Your task to perform on an android device: turn vacation reply on in the gmail app Image 0: 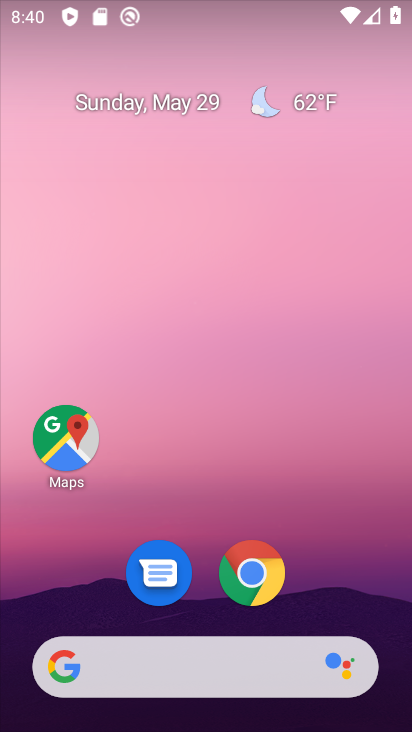
Step 0: drag from (371, 591) to (308, 146)
Your task to perform on an android device: turn vacation reply on in the gmail app Image 1: 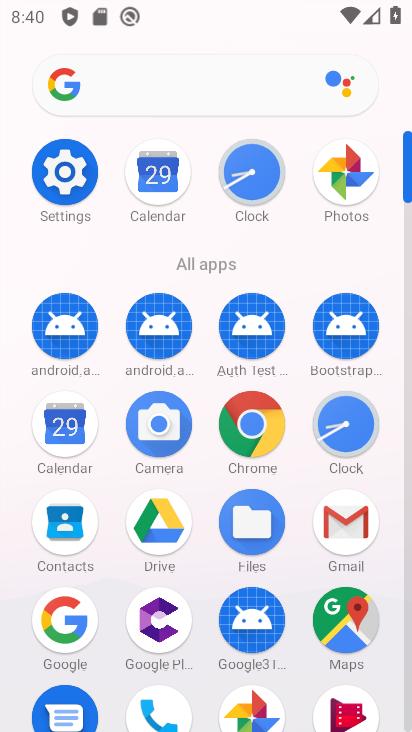
Step 1: click (348, 527)
Your task to perform on an android device: turn vacation reply on in the gmail app Image 2: 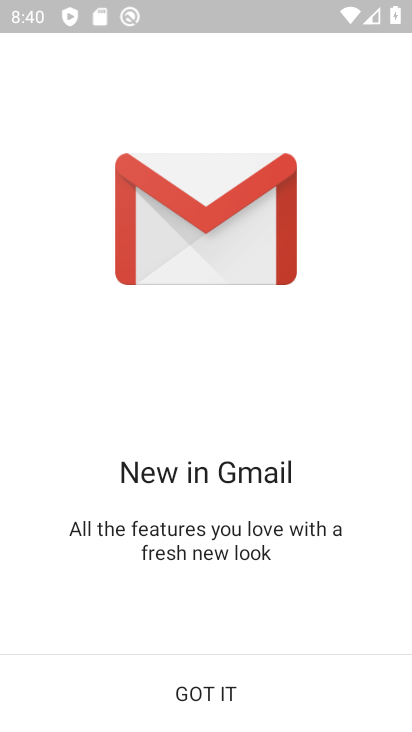
Step 2: click (189, 685)
Your task to perform on an android device: turn vacation reply on in the gmail app Image 3: 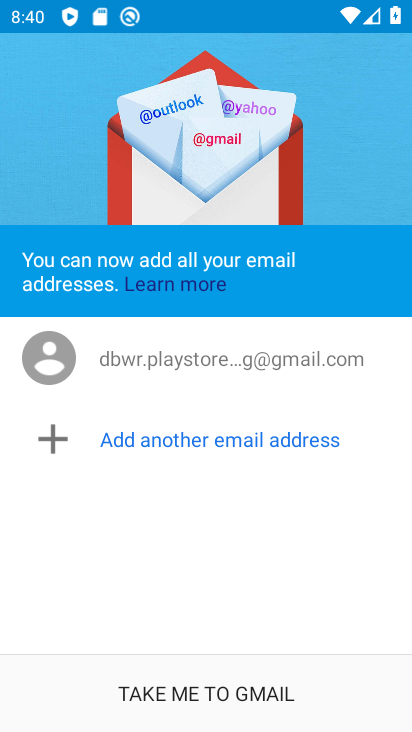
Step 3: click (189, 685)
Your task to perform on an android device: turn vacation reply on in the gmail app Image 4: 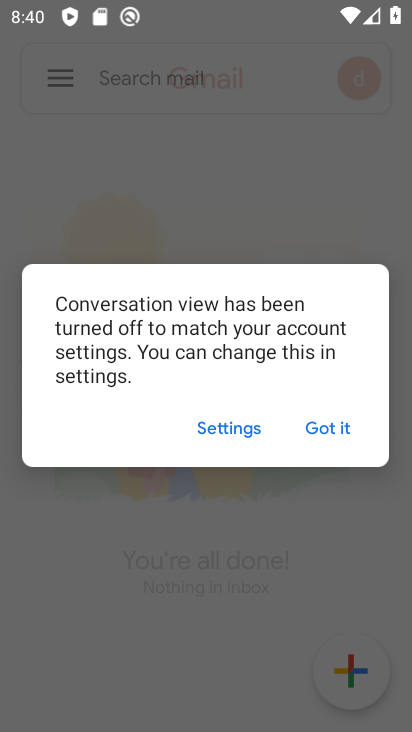
Step 4: click (323, 436)
Your task to perform on an android device: turn vacation reply on in the gmail app Image 5: 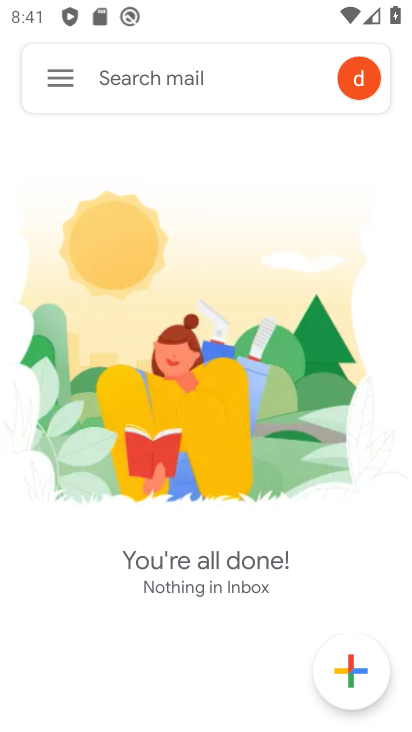
Step 5: click (56, 66)
Your task to perform on an android device: turn vacation reply on in the gmail app Image 6: 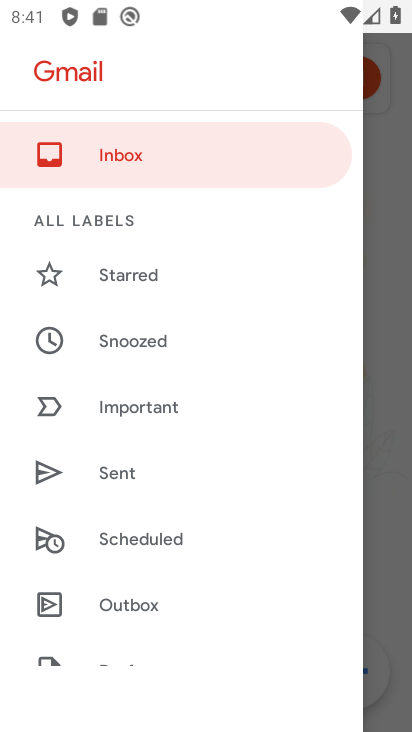
Step 6: drag from (236, 642) to (227, 115)
Your task to perform on an android device: turn vacation reply on in the gmail app Image 7: 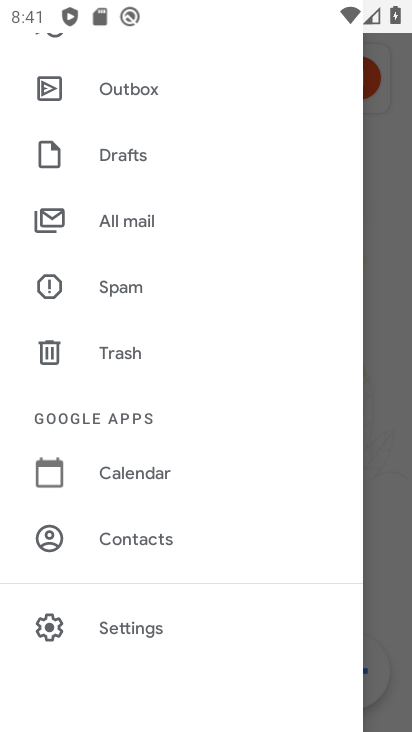
Step 7: click (126, 627)
Your task to perform on an android device: turn vacation reply on in the gmail app Image 8: 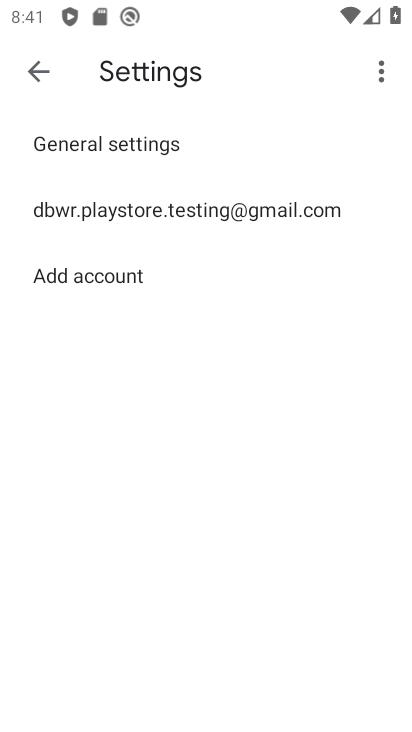
Step 8: click (192, 201)
Your task to perform on an android device: turn vacation reply on in the gmail app Image 9: 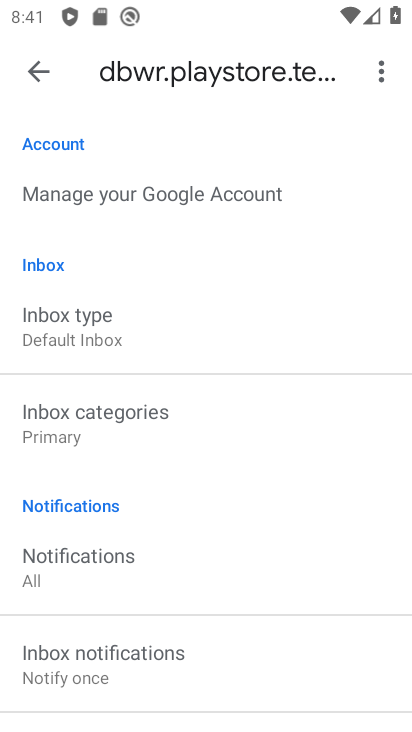
Step 9: drag from (280, 667) to (241, 25)
Your task to perform on an android device: turn vacation reply on in the gmail app Image 10: 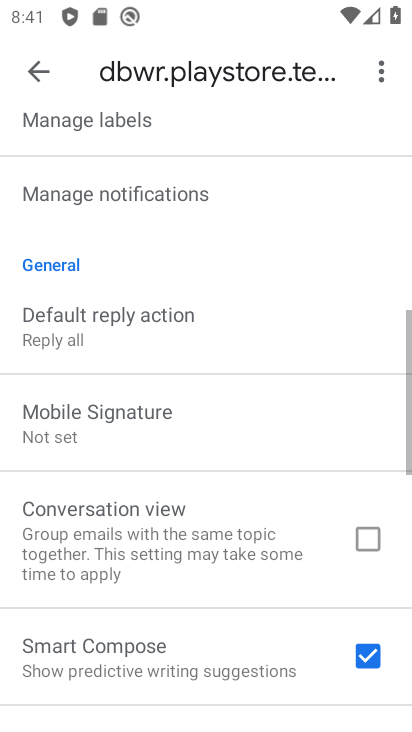
Step 10: drag from (222, 677) to (211, 244)
Your task to perform on an android device: turn vacation reply on in the gmail app Image 11: 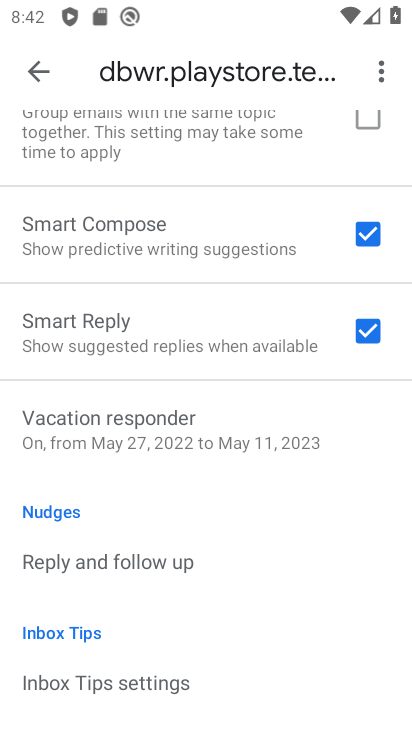
Step 11: click (194, 410)
Your task to perform on an android device: turn vacation reply on in the gmail app Image 12: 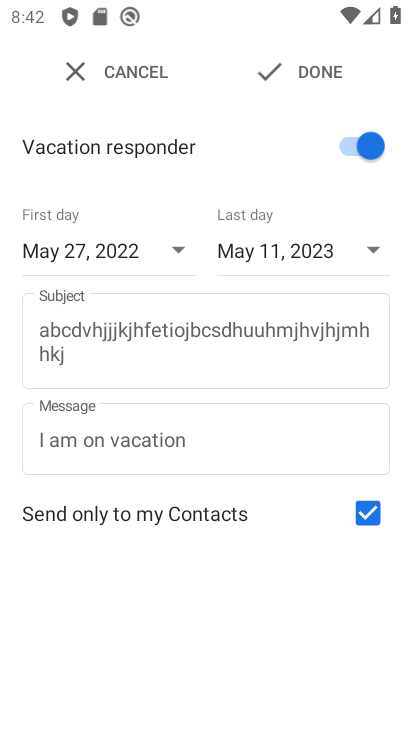
Step 12: task complete